Your task to perform on an android device: set the stopwatch Image 0: 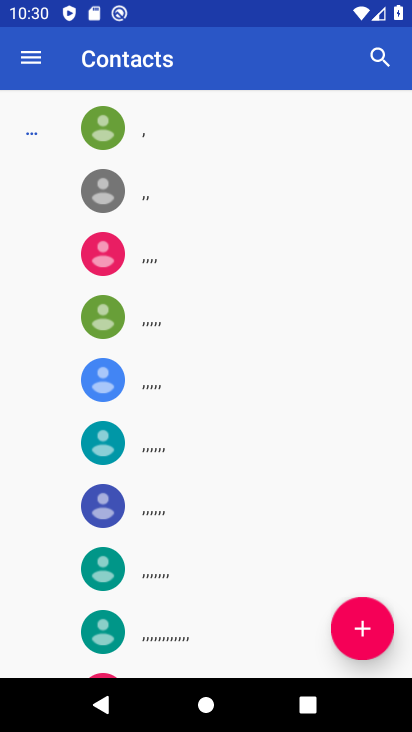
Step 0: press home button
Your task to perform on an android device: set the stopwatch Image 1: 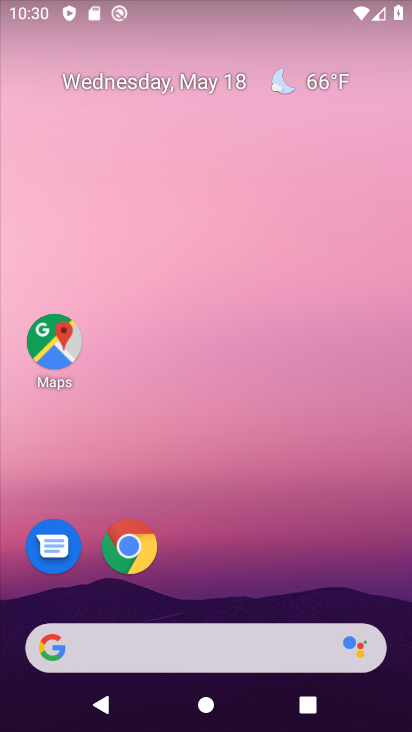
Step 1: drag from (245, 591) to (238, 178)
Your task to perform on an android device: set the stopwatch Image 2: 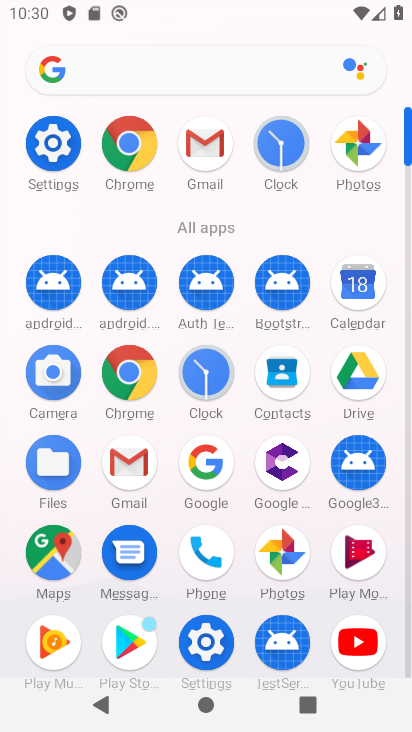
Step 2: click (276, 145)
Your task to perform on an android device: set the stopwatch Image 3: 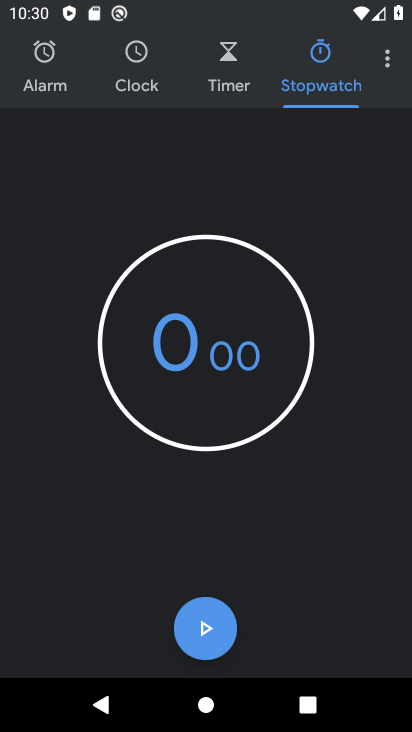
Step 3: click (199, 633)
Your task to perform on an android device: set the stopwatch Image 4: 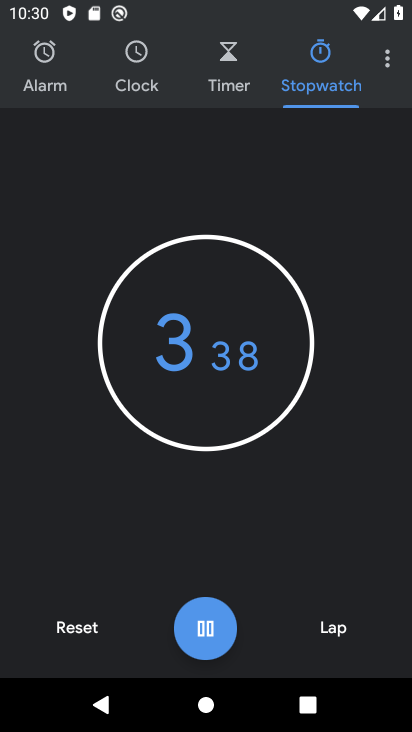
Step 4: task complete